Your task to perform on an android device: Open settings Image 0: 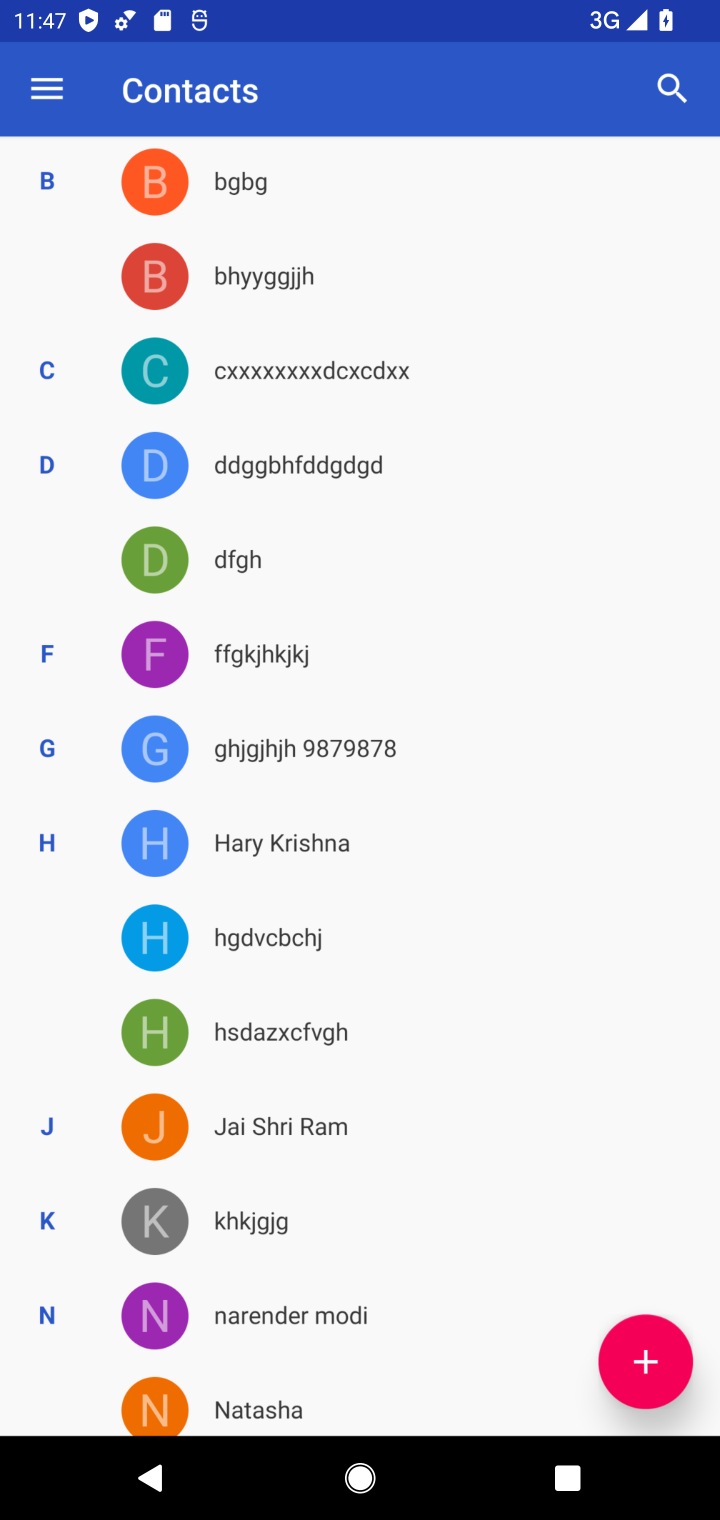
Step 0: press home button
Your task to perform on an android device: Open settings Image 1: 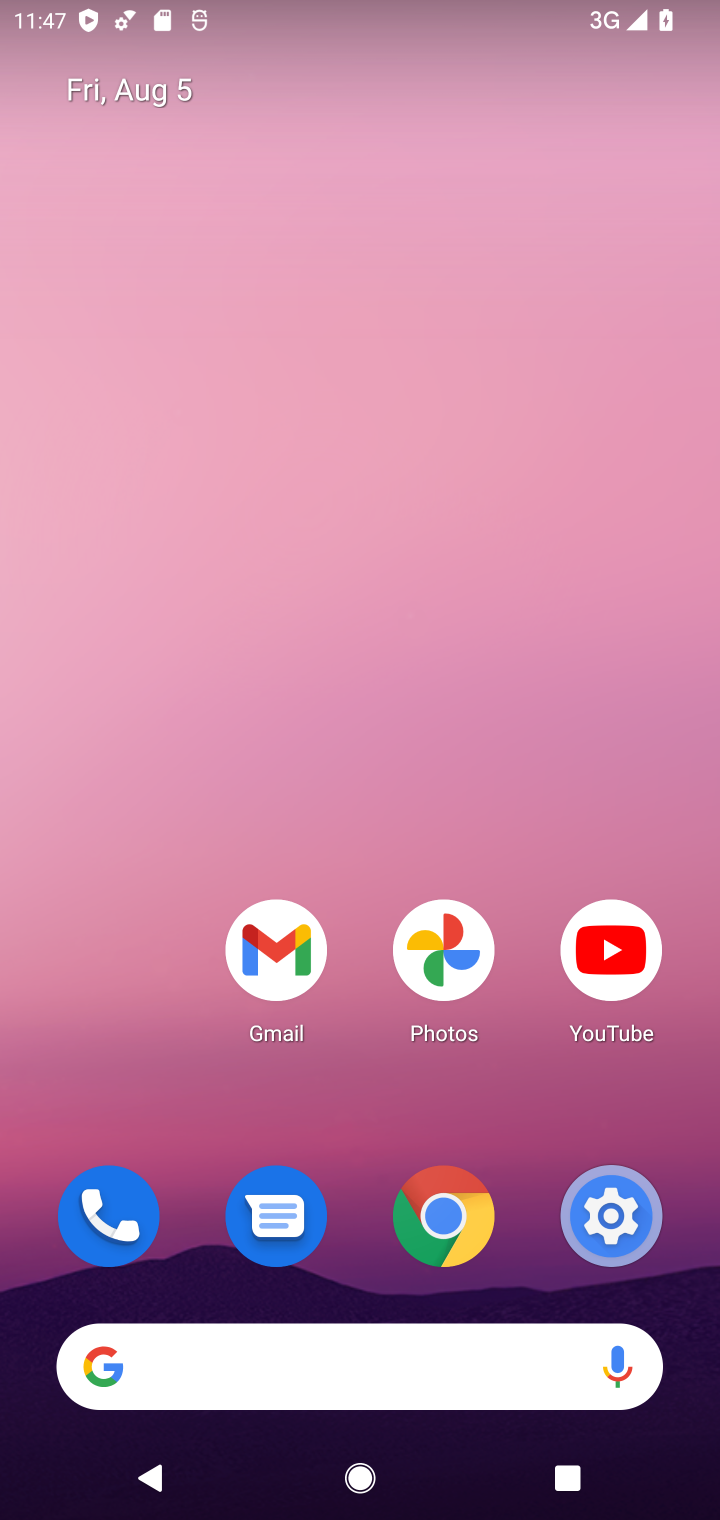
Step 1: drag from (438, 1365) to (371, 165)
Your task to perform on an android device: Open settings Image 2: 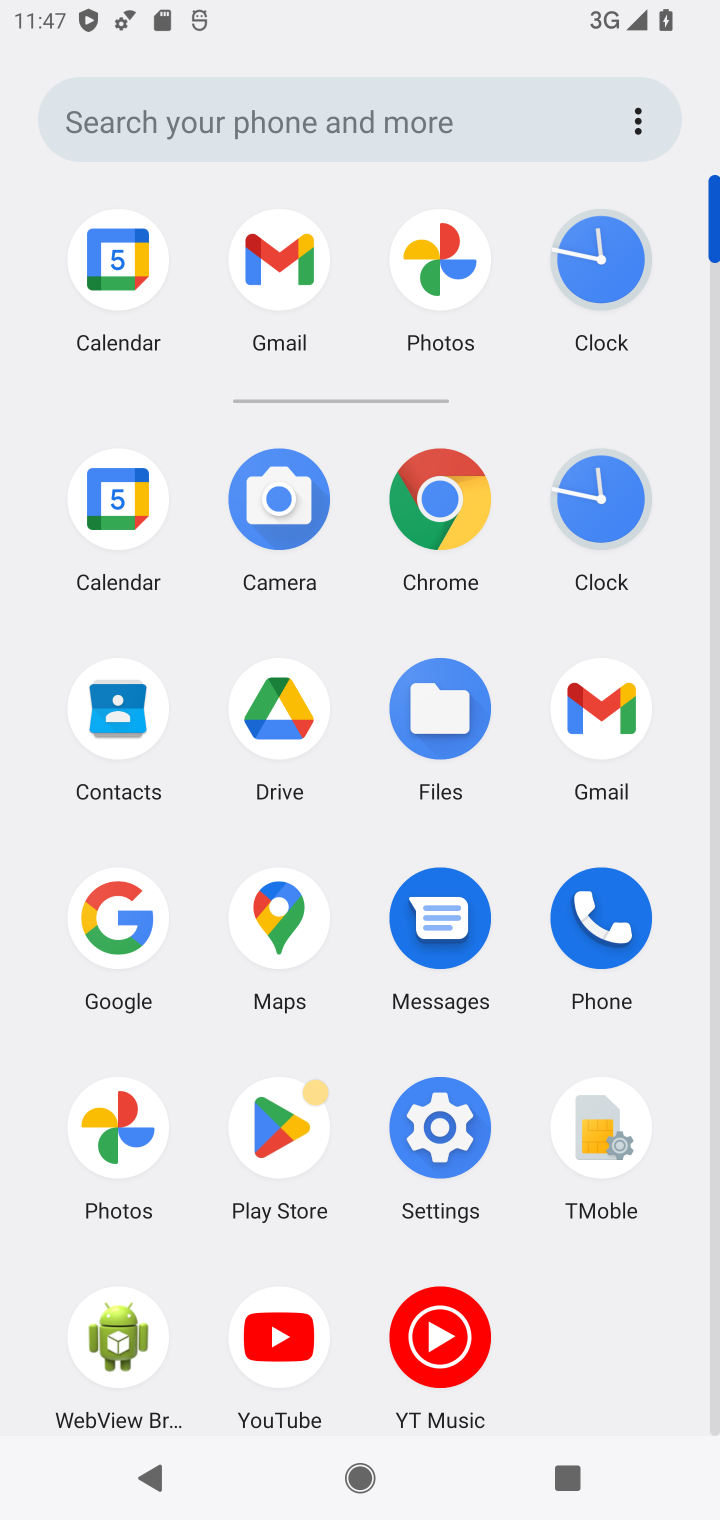
Step 2: click (448, 1108)
Your task to perform on an android device: Open settings Image 3: 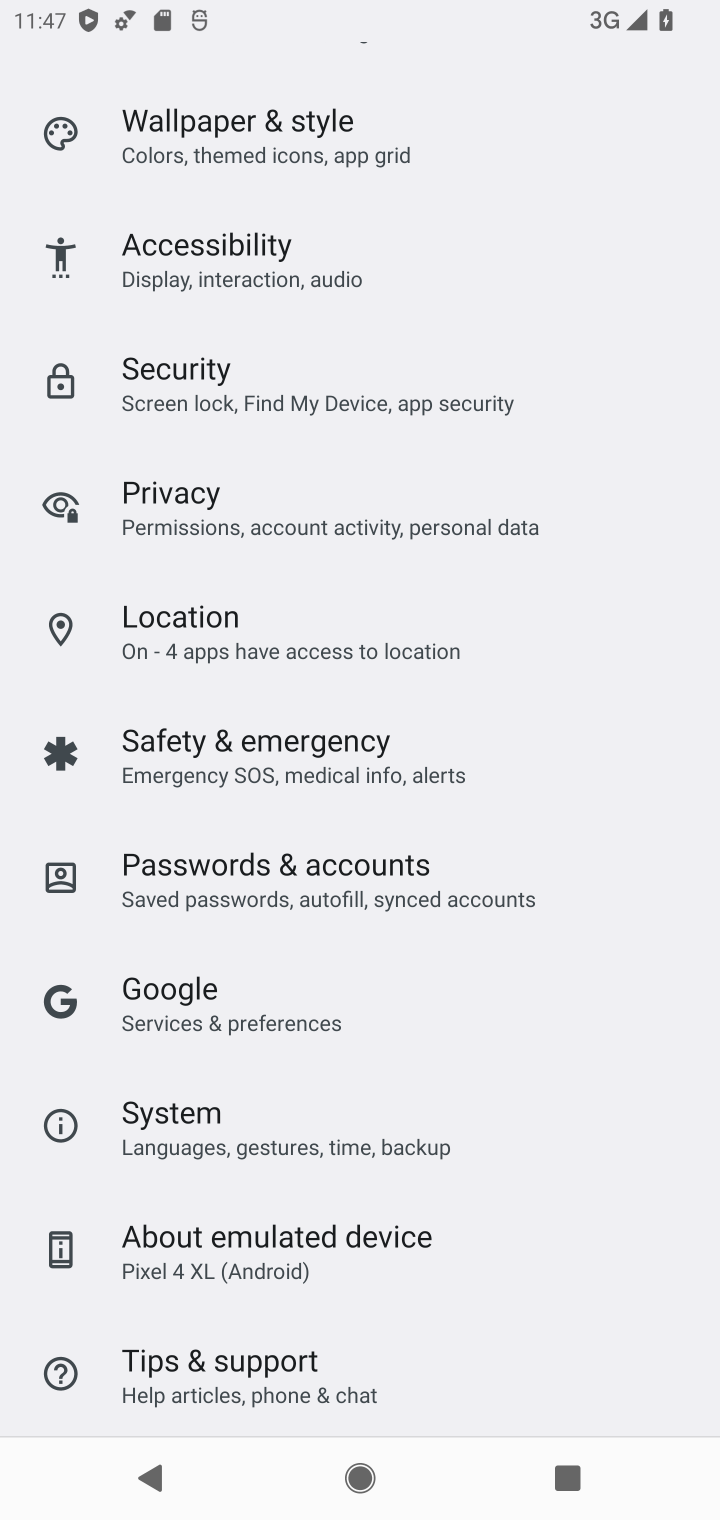
Step 3: task complete